Your task to perform on an android device: turn pop-ups on in chrome Image 0: 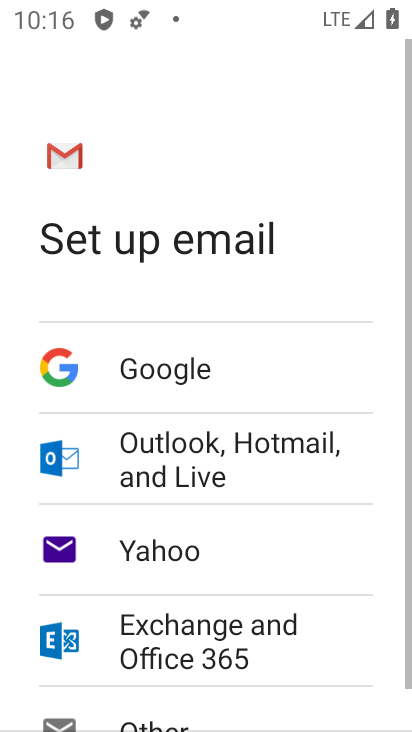
Step 0: press home button
Your task to perform on an android device: turn pop-ups on in chrome Image 1: 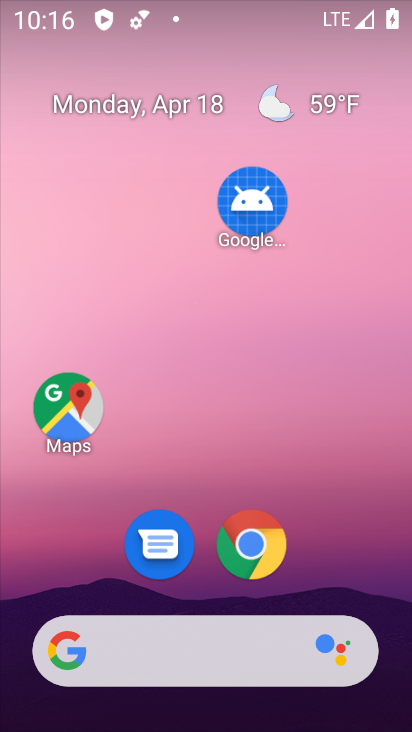
Step 1: drag from (319, 570) to (342, 210)
Your task to perform on an android device: turn pop-ups on in chrome Image 2: 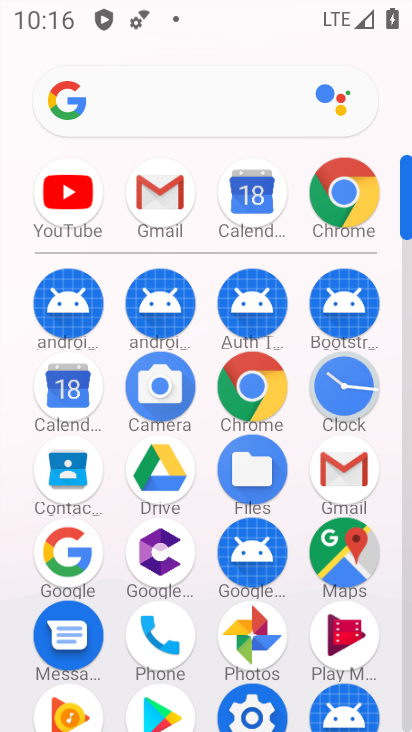
Step 2: click (358, 183)
Your task to perform on an android device: turn pop-ups on in chrome Image 3: 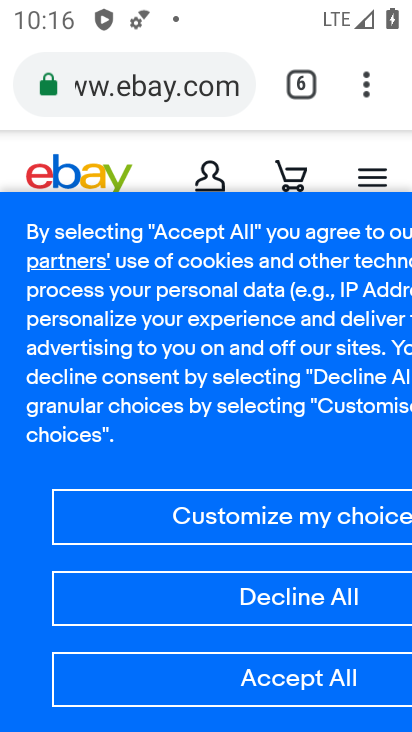
Step 3: click (357, 64)
Your task to perform on an android device: turn pop-ups on in chrome Image 4: 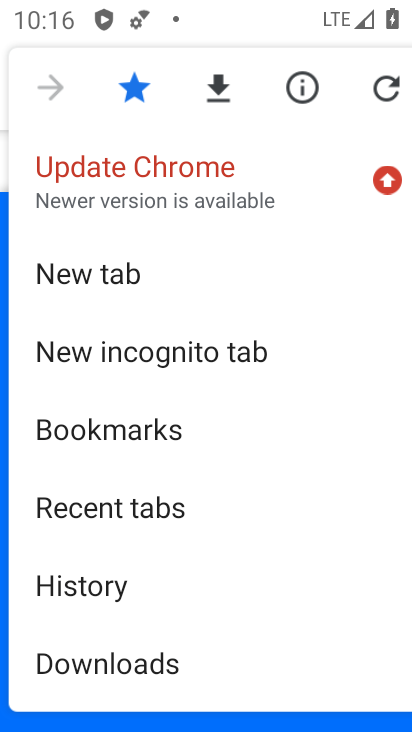
Step 4: drag from (207, 625) to (240, 233)
Your task to perform on an android device: turn pop-ups on in chrome Image 5: 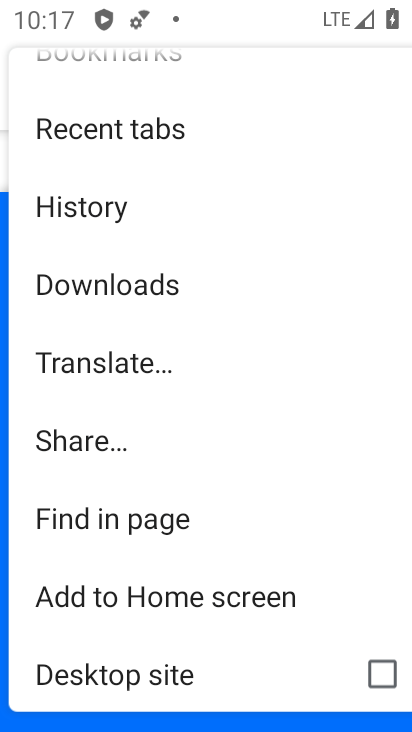
Step 5: drag from (142, 551) to (212, 175)
Your task to perform on an android device: turn pop-ups on in chrome Image 6: 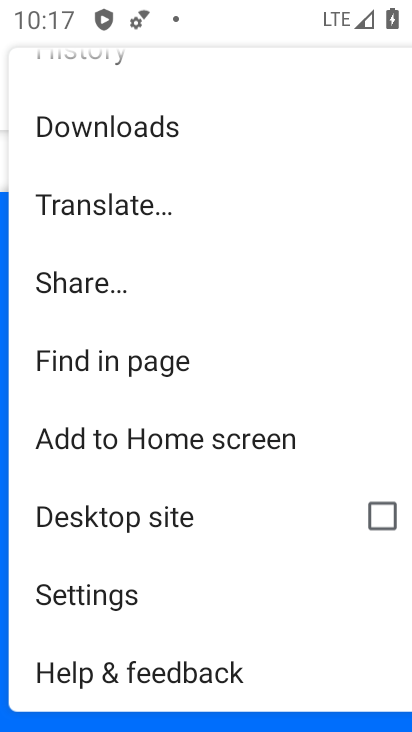
Step 6: click (115, 605)
Your task to perform on an android device: turn pop-ups on in chrome Image 7: 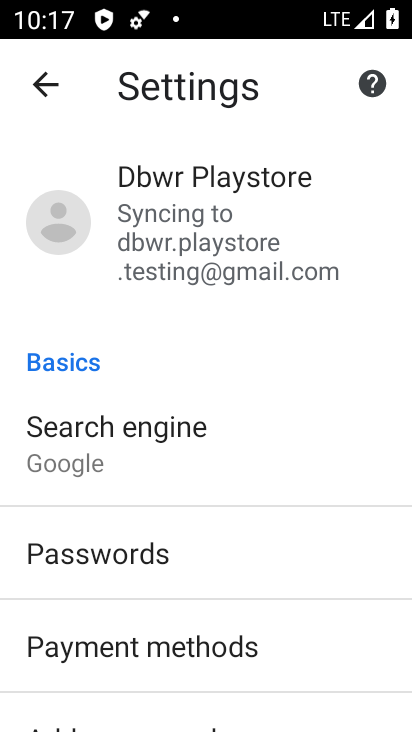
Step 7: drag from (237, 583) to (287, 297)
Your task to perform on an android device: turn pop-ups on in chrome Image 8: 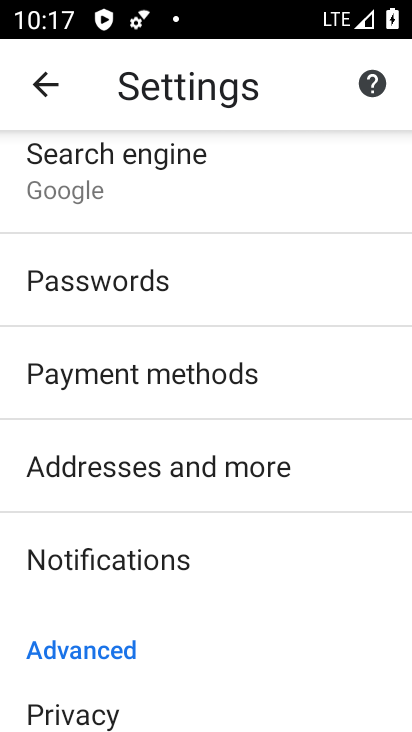
Step 8: drag from (213, 615) to (301, 282)
Your task to perform on an android device: turn pop-ups on in chrome Image 9: 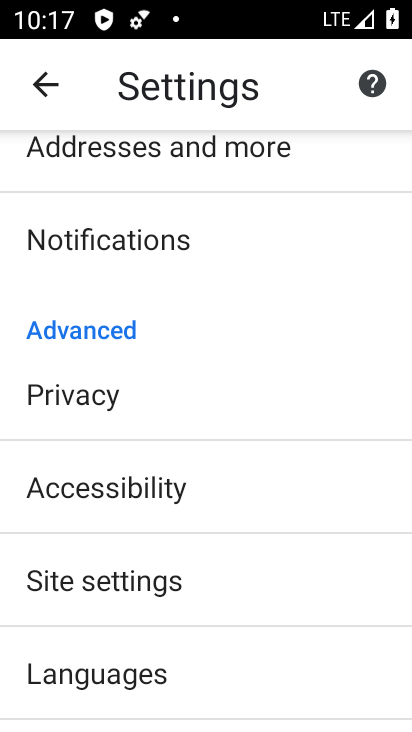
Step 9: drag from (157, 628) to (185, 494)
Your task to perform on an android device: turn pop-ups on in chrome Image 10: 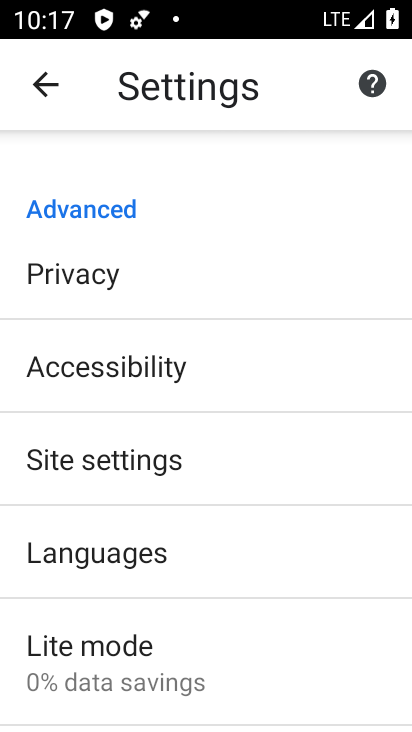
Step 10: click (178, 462)
Your task to perform on an android device: turn pop-ups on in chrome Image 11: 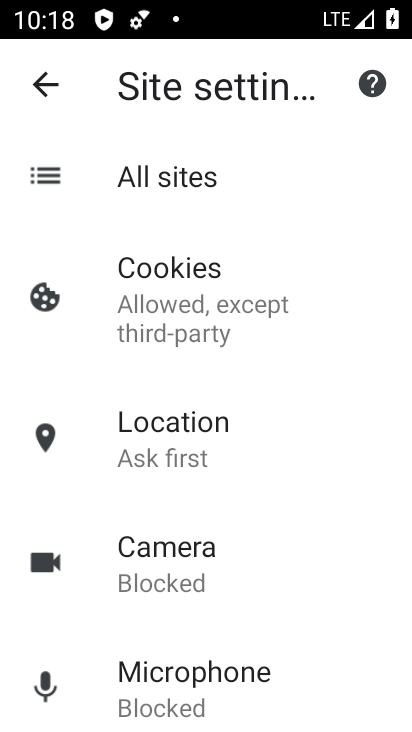
Step 11: drag from (197, 620) to (242, 195)
Your task to perform on an android device: turn pop-ups on in chrome Image 12: 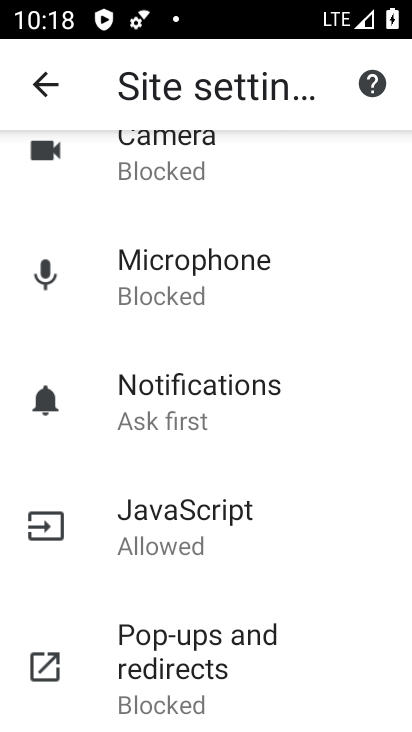
Step 12: click (187, 641)
Your task to perform on an android device: turn pop-ups on in chrome Image 13: 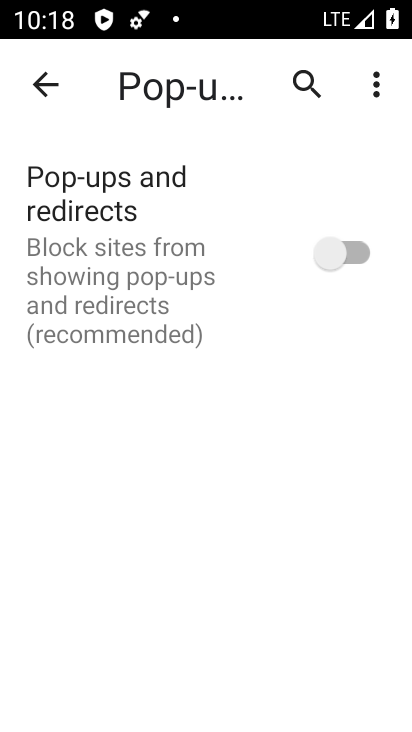
Step 13: click (341, 252)
Your task to perform on an android device: turn pop-ups on in chrome Image 14: 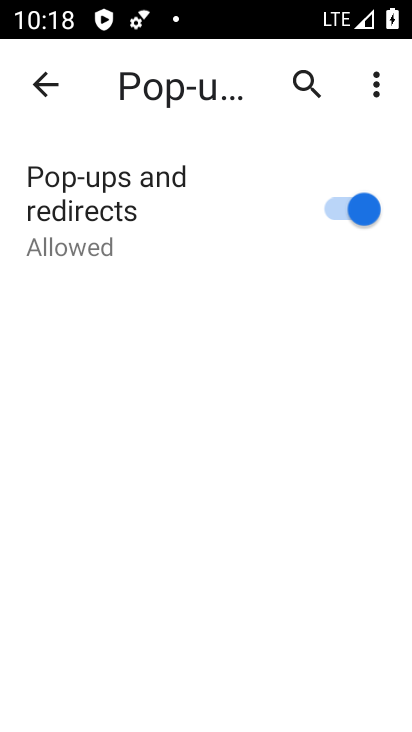
Step 14: task complete